Your task to perform on an android device: Search for seafood restaurants on Google Maps Image 0: 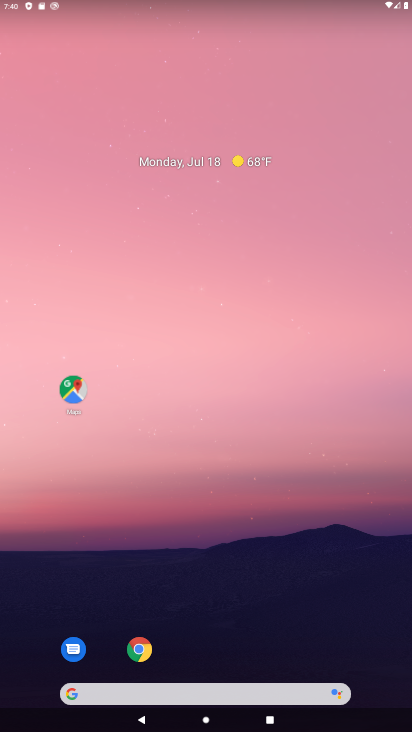
Step 0: click (73, 391)
Your task to perform on an android device: Search for seafood restaurants on Google Maps Image 1: 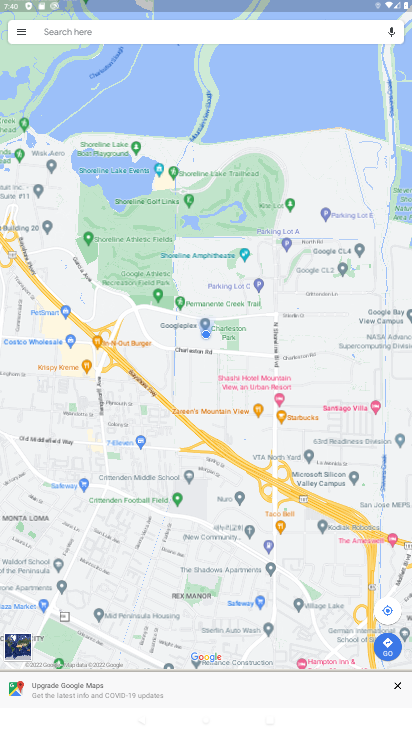
Step 1: click (166, 34)
Your task to perform on an android device: Search for seafood restaurants on Google Maps Image 2: 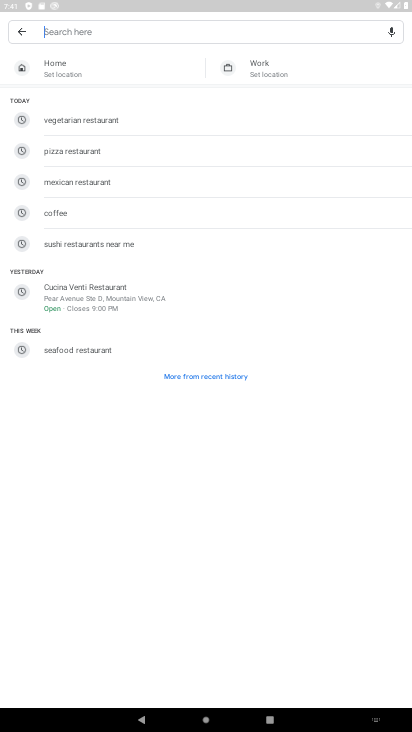
Step 2: click (97, 349)
Your task to perform on an android device: Search for seafood restaurants on Google Maps Image 3: 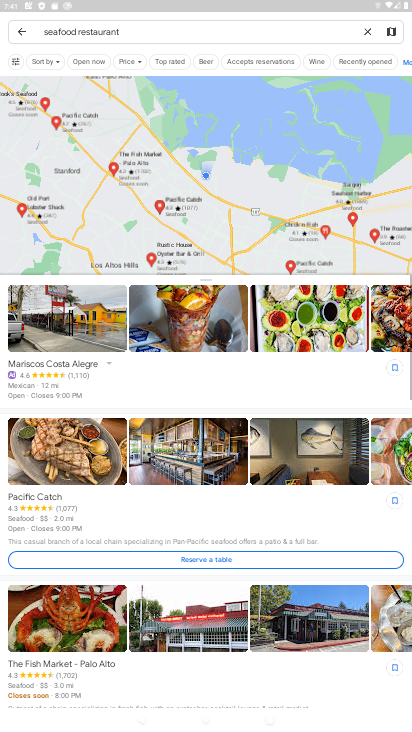
Step 3: task complete